Your task to perform on an android device: Go to notification settings Image 0: 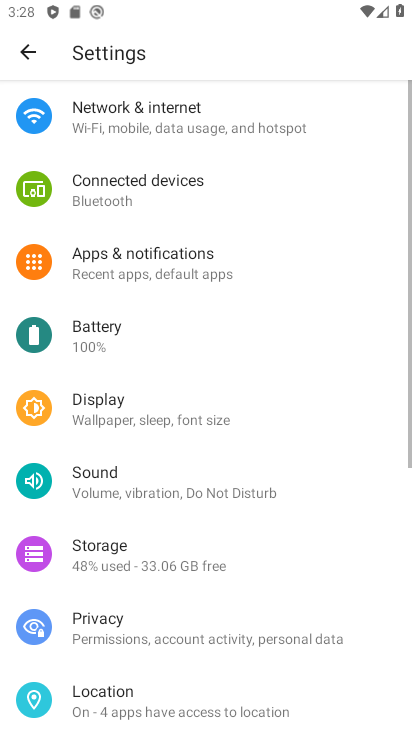
Step 0: drag from (377, 631) to (360, 386)
Your task to perform on an android device: Go to notification settings Image 1: 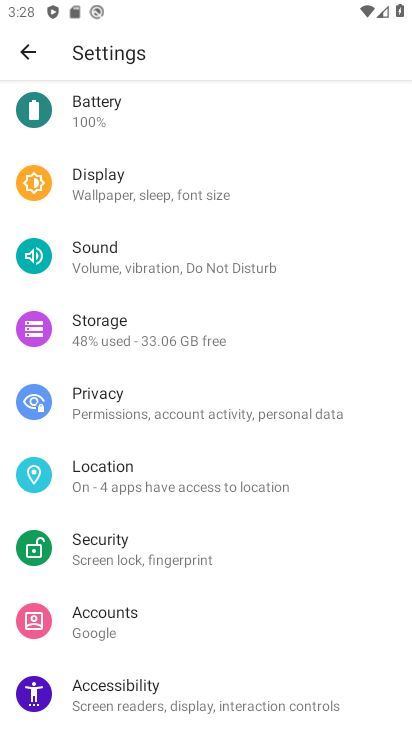
Step 1: drag from (354, 616) to (356, 434)
Your task to perform on an android device: Go to notification settings Image 2: 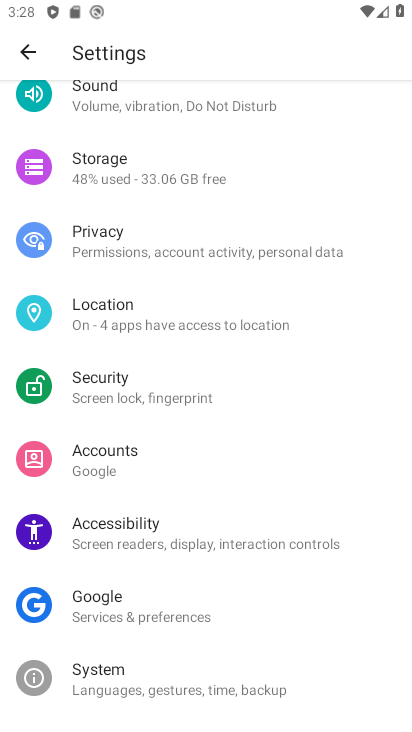
Step 2: drag from (353, 642) to (347, 461)
Your task to perform on an android device: Go to notification settings Image 3: 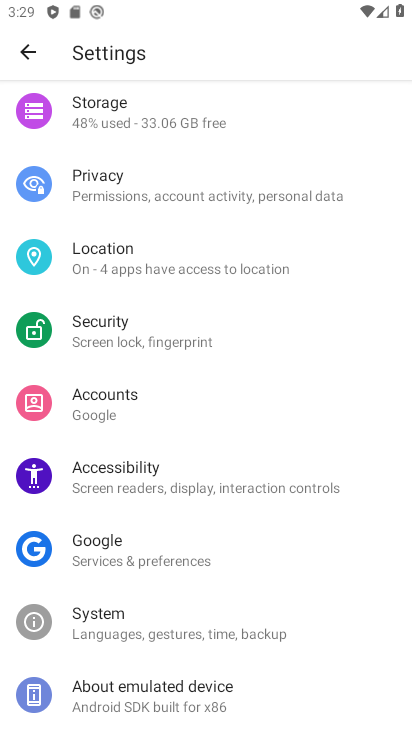
Step 3: drag from (339, 659) to (347, 426)
Your task to perform on an android device: Go to notification settings Image 4: 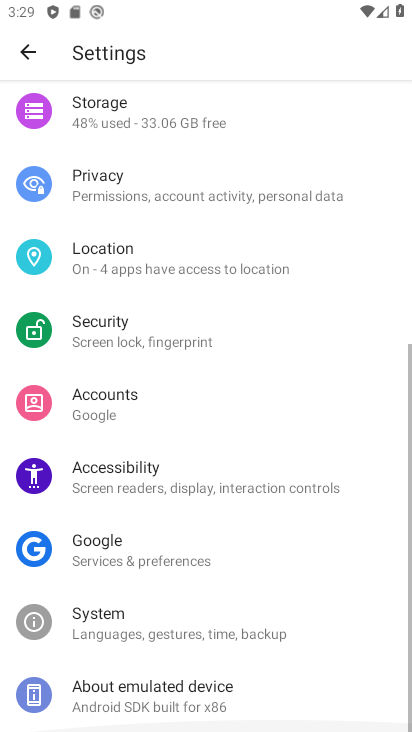
Step 4: drag from (357, 366) to (342, 561)
Your task to perform on an android device: Go to notification settings Image 5: 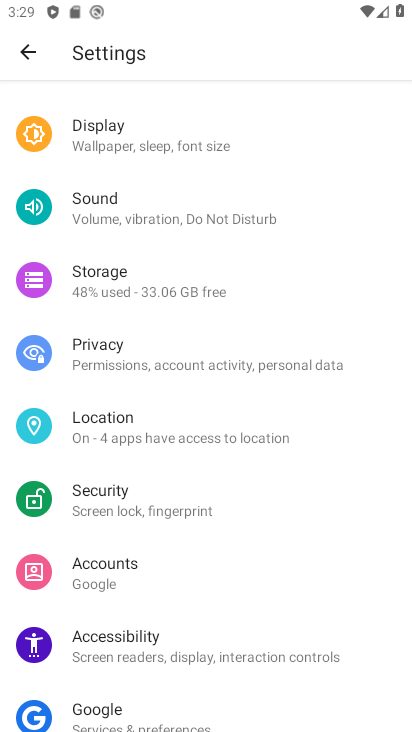
Step 5: drag from (368, 343) to (355, 499)
Your task to perform on an android device: Go to notification settings Image 6: 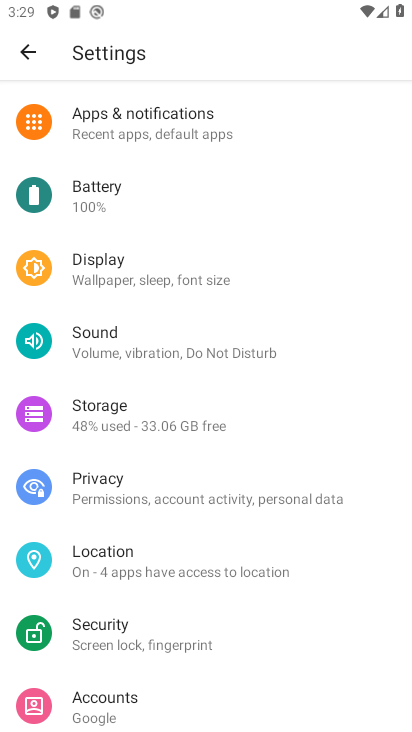
Step 6: drag from (361, 325) to (354, 485)
Your task to perform on an android device: Go to notification settings Image 7: 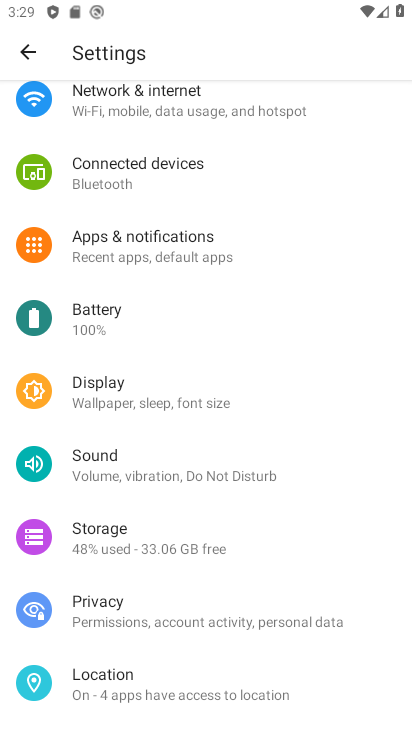
Step 7: drag from (349, 282) to (346, 457)
Your task to perform on an android device: Go to notification settings Image 8: 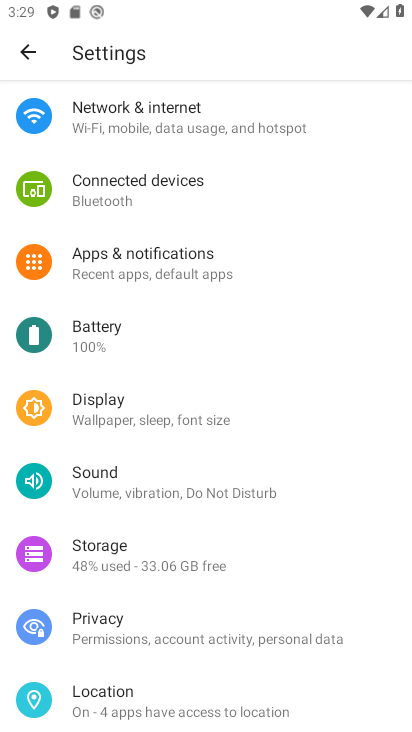
Step 8: click (196, 266)
Your task to perform on an android device: Go to notification settings Image 9: 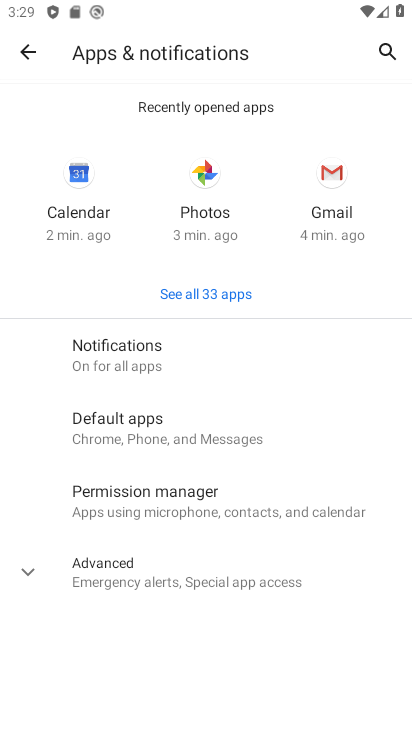
Step 9: click (220, 355)
Your task to perform on an android device: Go to notification settings Image 10: 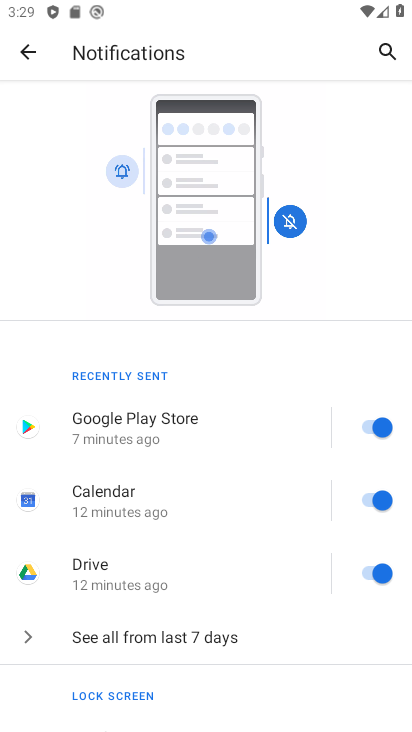
Step 10: task complete